Your task to perform on an android device: make emails show in primary in the gmail app Image 0: 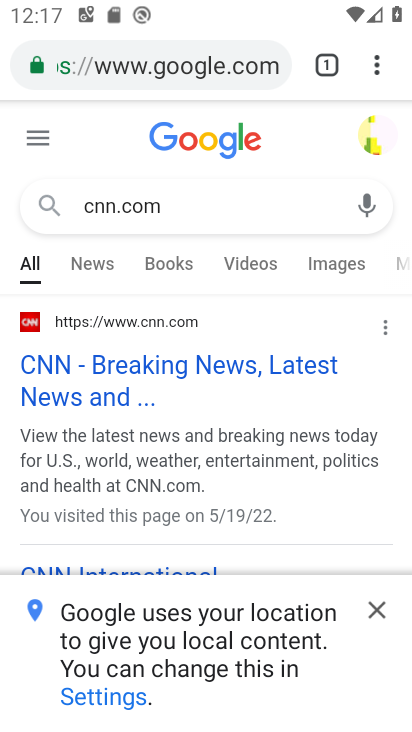
Step 0: press home button
Your task to perform on an android device: make emails show in primary in the gmail app Image 1: 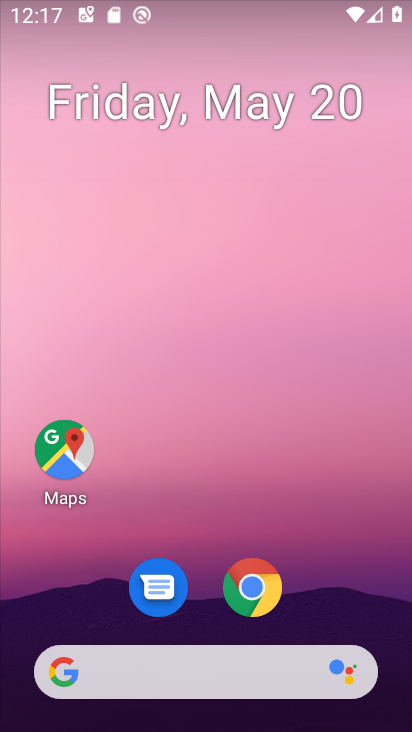
Step 1: drag from (382, 619) to (377, 305)
Your task to perform on an android device: make emails show in primary in the gmail app Image 2: 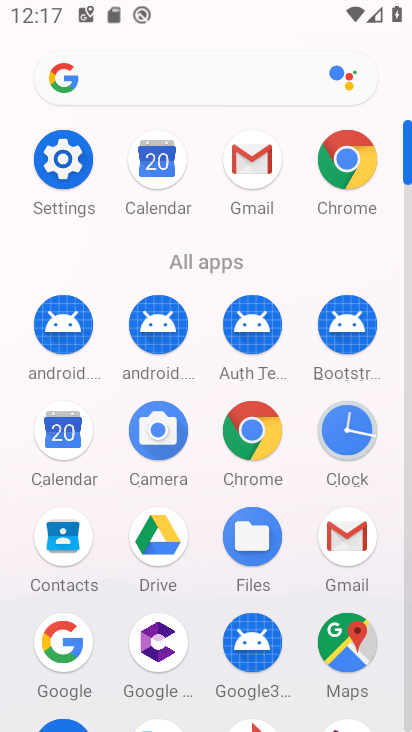
Step 2: click (349, 548)
Your task to perform on an android device: make emails show in primary in the gmail app Image 3: 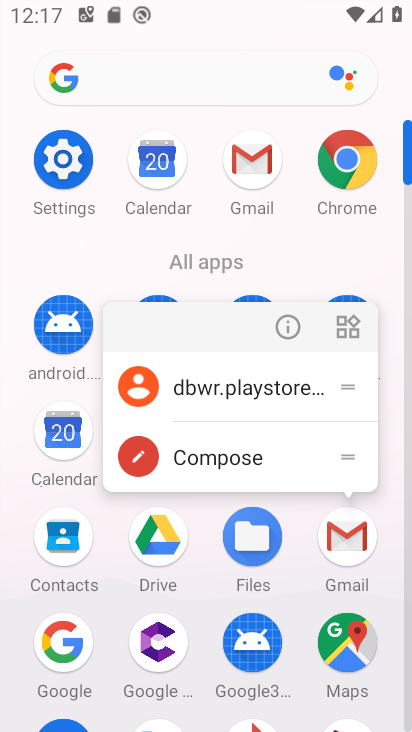
Step 3: click (347, 548)
Your task to perform on an android device: make emails show in primary in the gmail app Image 4: 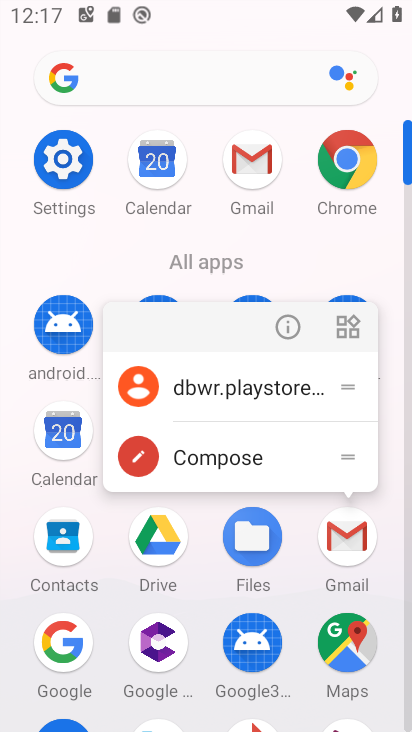
Step 4: click (346, 548)
Your task to perform on an android device: make emails show in primary in the gmail app Image 5: 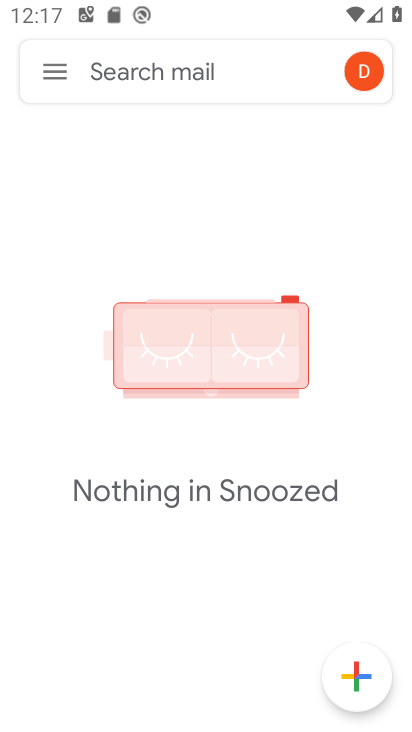
Step 5: click (57, 80)
Your task to perform on an android device: make emails show in primary in the gmail app Image 6: 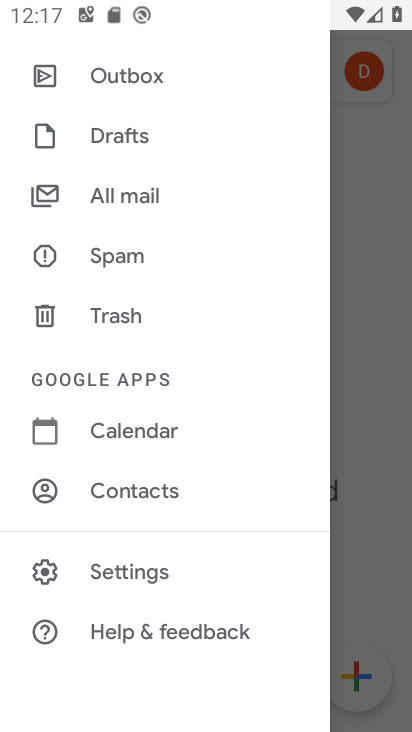
Step 6: click (193, 565)
Your task to perform on an android device: make emails show in primary in the gmail app Image 7: 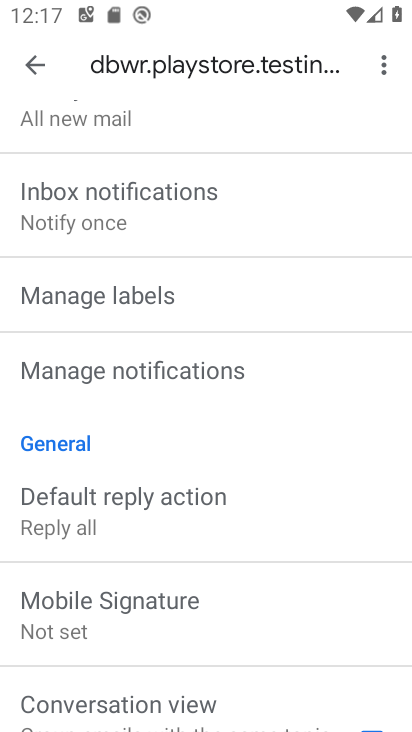
Step 7: drag from (310, 586) to (325, 502)
Your task to perform on an android device: make emails show in primary in the gmail app Image 8: 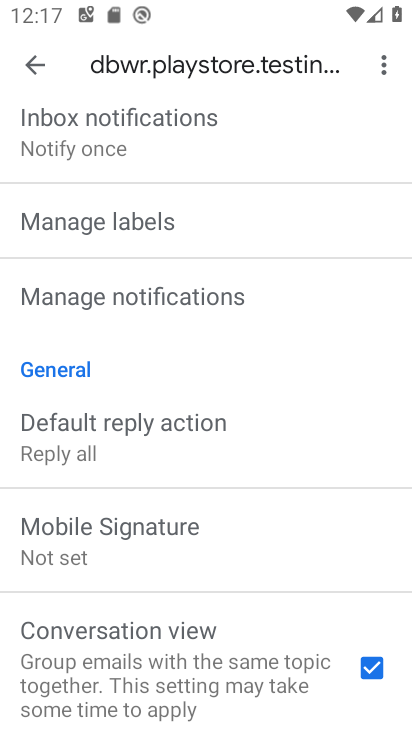
Step 8: drag from (307, 619) to (313, 516)
Your task to perform on an android device: make emails show in primary in the gmail app Image 9: 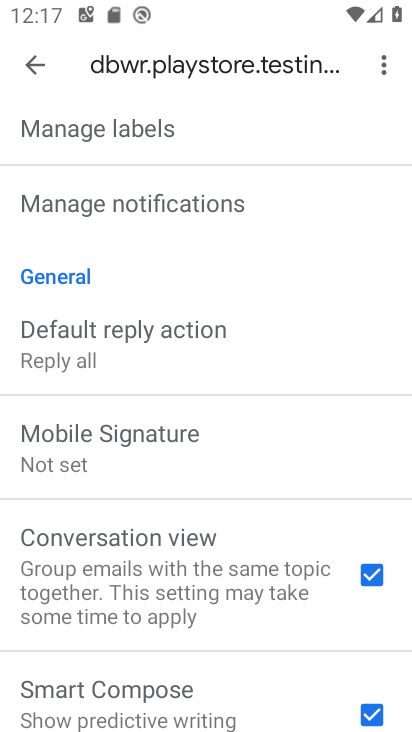
Step 9: drag from (300, 661) to (307, 521)
Your task to perform on an android device: make emails show in primary in the gmail app Image 10: 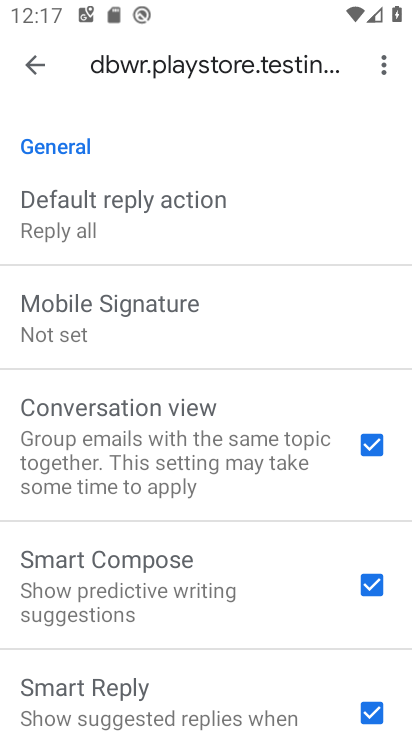
Step 10: drag from (304, 644) to (313, 541)
Your task to perform on an android device: make emails show in primary in the gmail app Image 11: 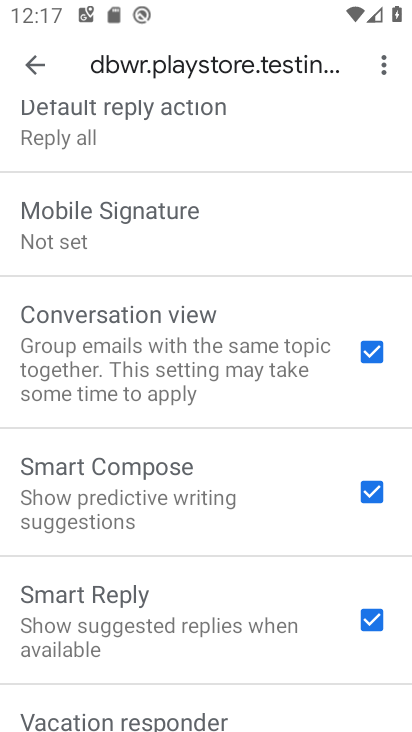
Step 11: drag from (306, 687) to (304, 585)
Your task to perform on an android device: make emails show in primary in the gmail app Image 12: 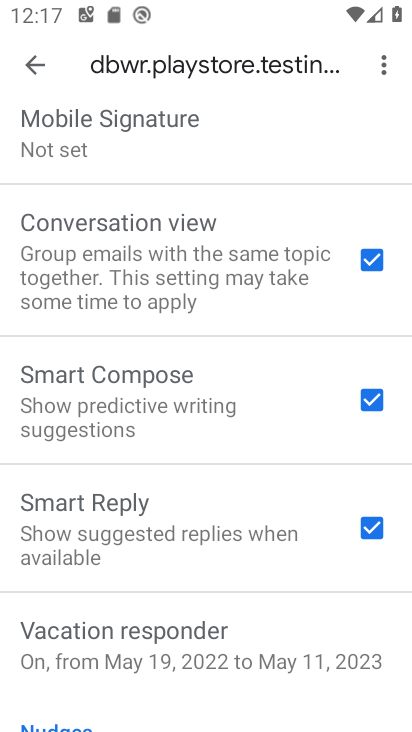
Step 12: drag from (289, 670) to (301, 550)
Your task to perform on an android device: make emails show in primary in the gmail app Image 13: 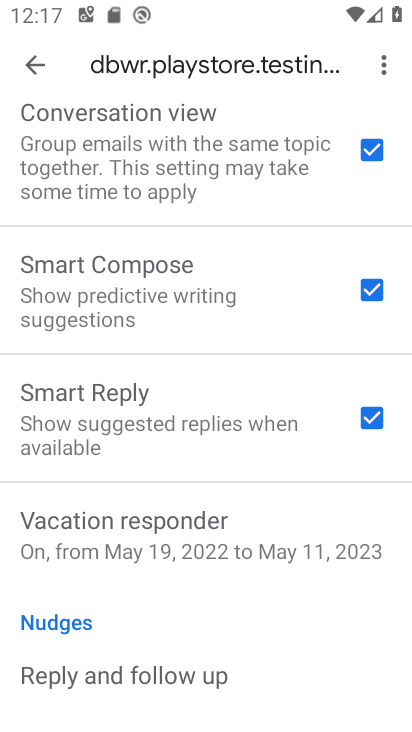
Step 13: drag from (310, 656) to (325, 520)
Your task to perform on an android device: make emails show in primary in the gmail app Image 14: 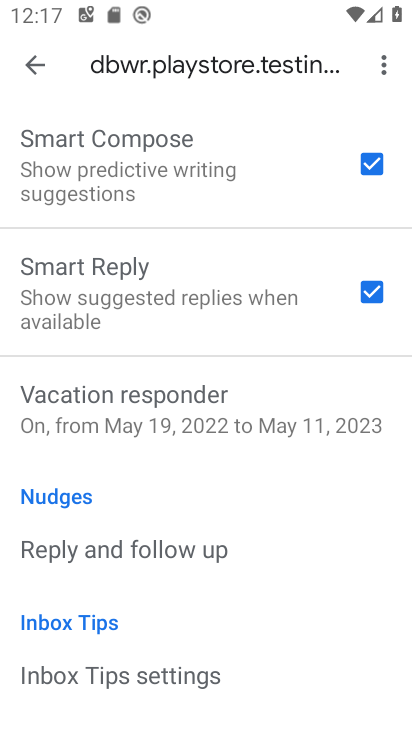
Step 14: drag from (325, 654) to (334, 543)
Your task to perform on an android device: make emails show in primary in the gmail app Image 15: 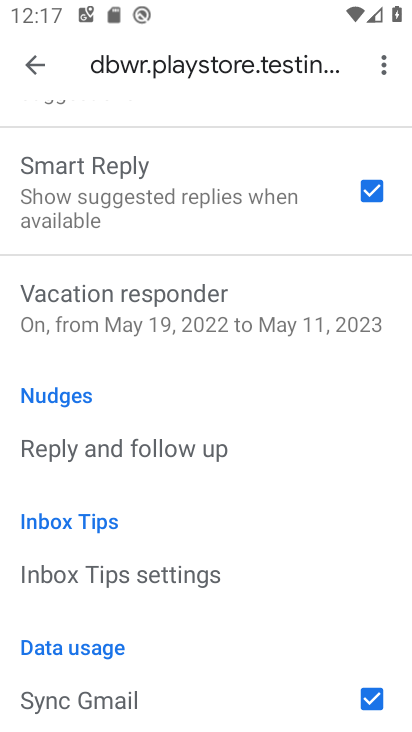
Step 15: drag from (311, 691) to (318, 556)
Your task to perform on an android device: make emails show in primary in the gmail app Image 16: 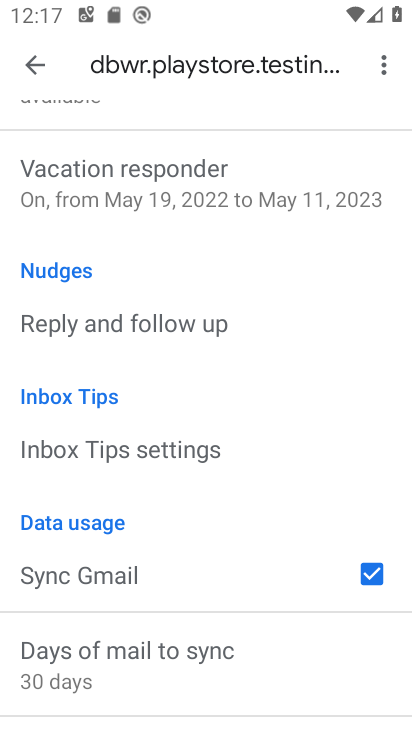
Step 16: drag from (312, 673) to (322, 545)
Your task to perform on an android device: make emails show in primary in the gmail app Image 17: 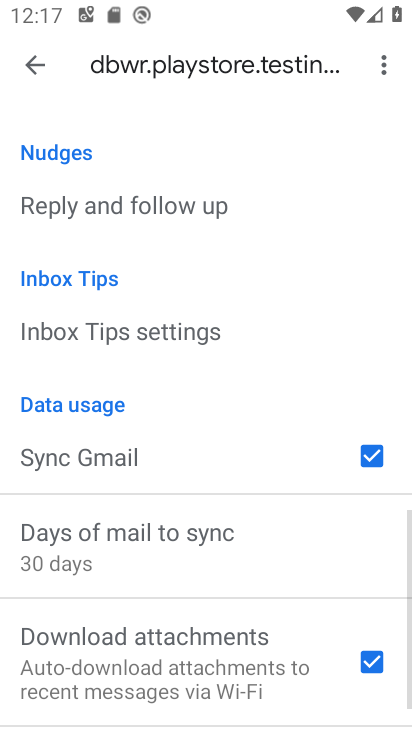
Step 17: drag from (316, 675) to (326, 542)
Your task to perform on an android device: make emails show in primary in the gmail app Image 18: 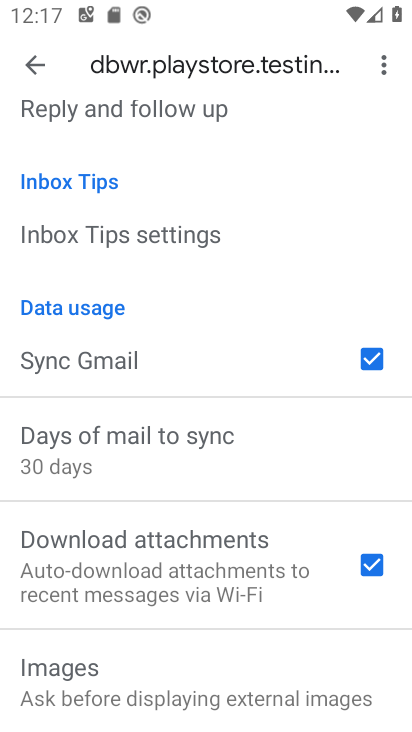
Step 18: drag from (316, 404) to (319, 569)
Your task to perform on an android device: make emails show in primary in the gmail app Image 19: 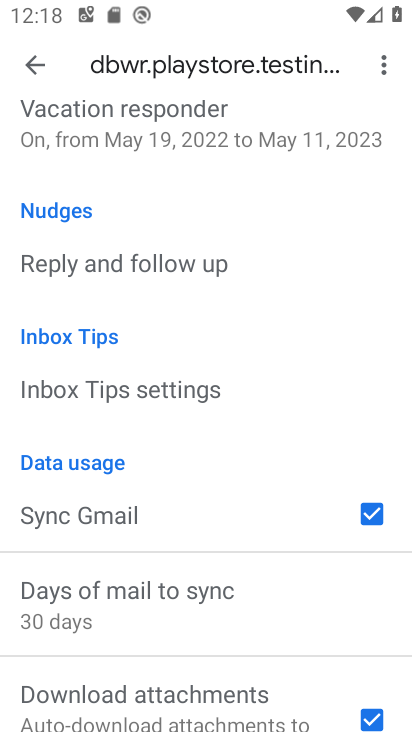
Step 19: drag from (332, 448) to (327, 549)
Your task to perform on an android device: make emails show in primary in the gmail app Image 20: 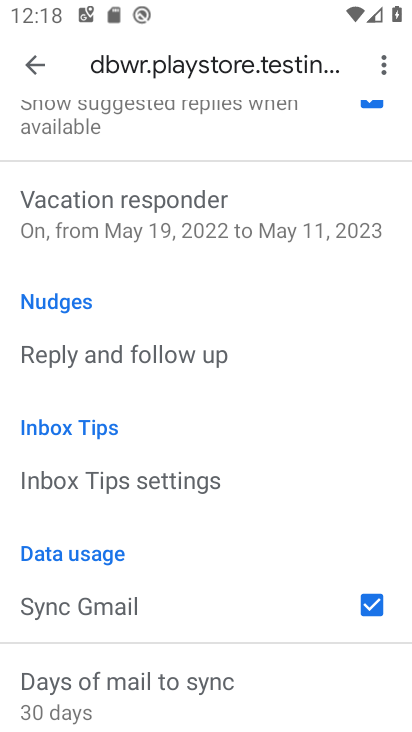
Step 20: drag from (316, 391) to (323, 471)
Your task to perform on an android device: make emails show in primary in the gmail app Image 21: 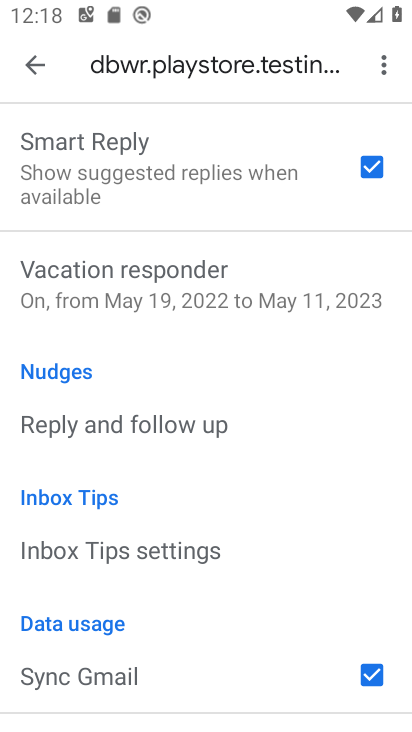
Step 21: drag from (312, 379) to (314, 498)
Your task to perform on an android device: make emails show in primary in the gmail app Image 22: 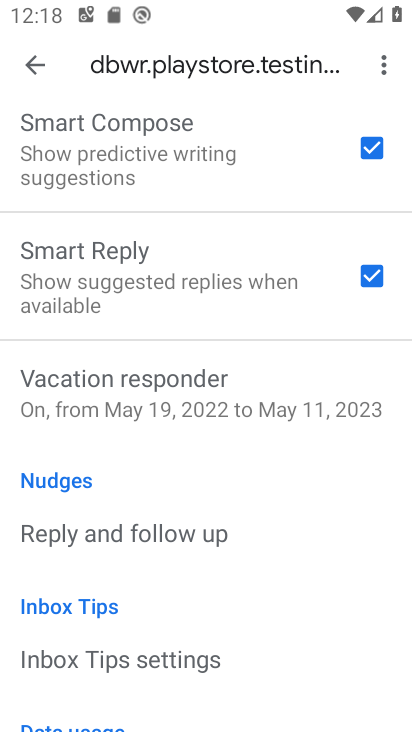
Step 22: drag from (296, 354) to (295, 506)
Your task to perform on an android device: make emails show in primary in the gmail app Image 23: 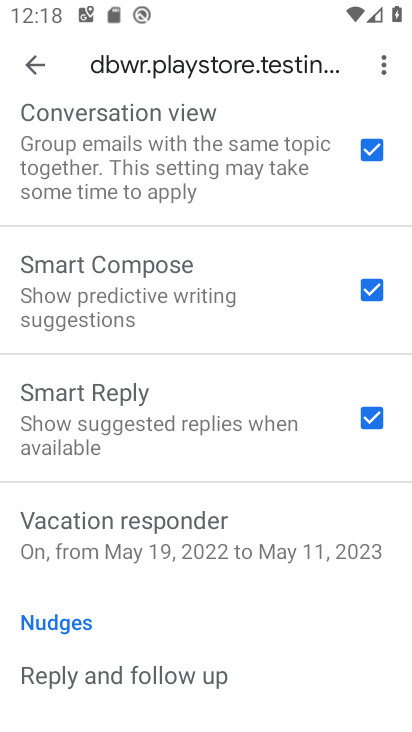
Step 23: drag from (304, 338) to (322, 509)
Your task to perform on an android device: make emails show in primary in the gmail app Image 24: 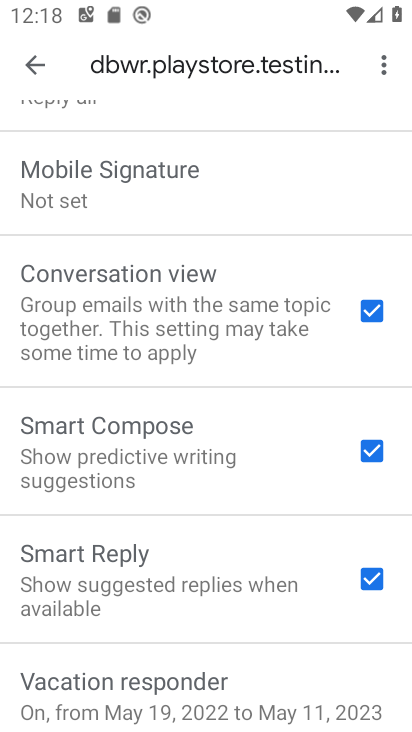
Step 24: drag from (301, 384) to (308, 465)
Your task to perform on an android device: make emails show in primary in the gmail app Image 25: 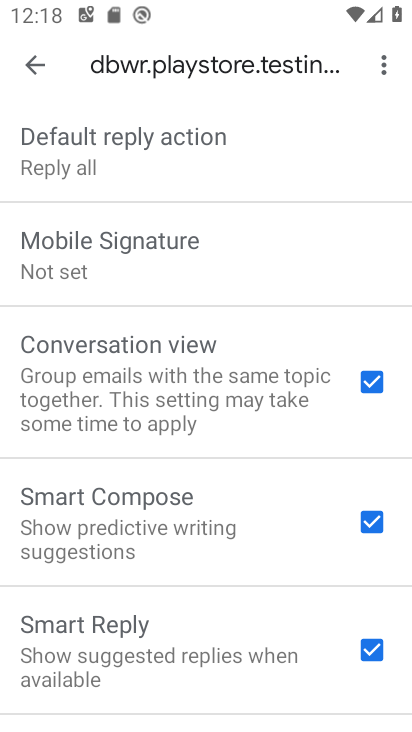
Step 25: drag from (309, 314) to (311, 409)
Your task to perform on an android device: make emails show in primary in the gmail app Image 26: 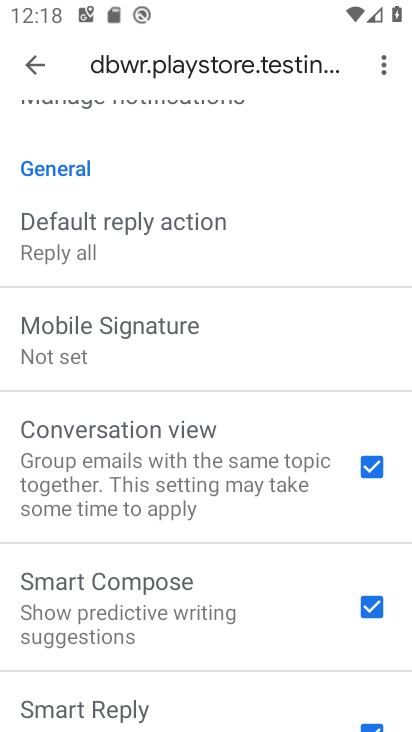
Step 26: drag from (289, 271) to (289, 376)
Your task to perform on an android device: make emails show in primary in the gmail app Image 27: 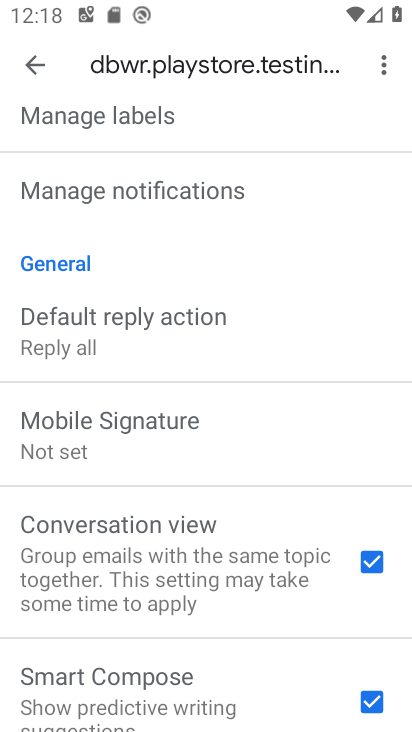
Step 27: drag from (277, 255) to (287, 340)
Your task to perform on an android device: make emails show in primary in the gmail app Image 28: 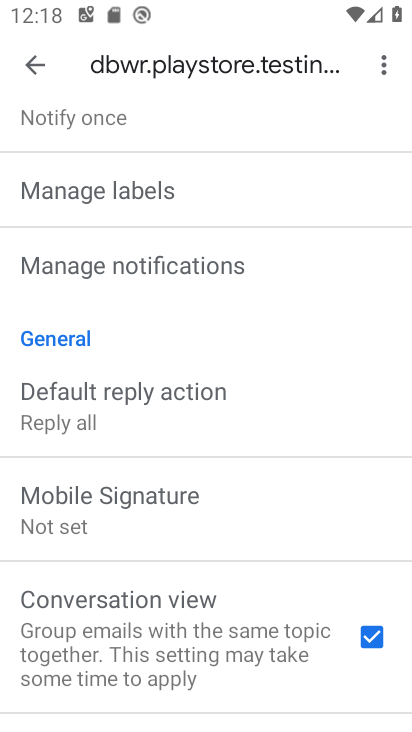
Step 28: drag from (280, 221) to (278, 326)
Your task to perform on an android device: make emails show in primary in the gmail app Image 29: 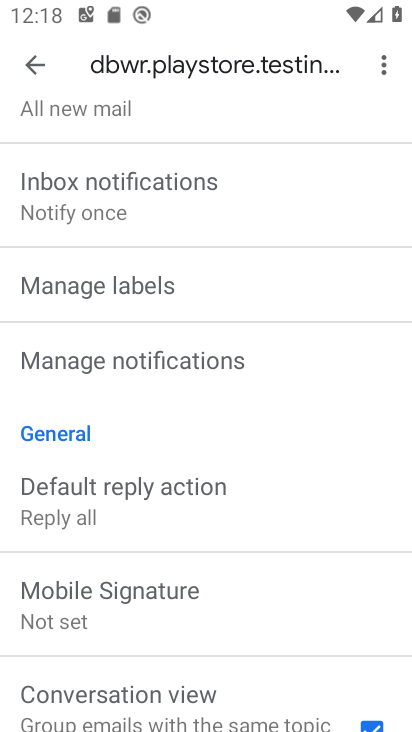
Step 29: drag from (274, 235) to (271, 309)
Your task to perform on an android device: make emails show in primary in the gmail app Image 30: 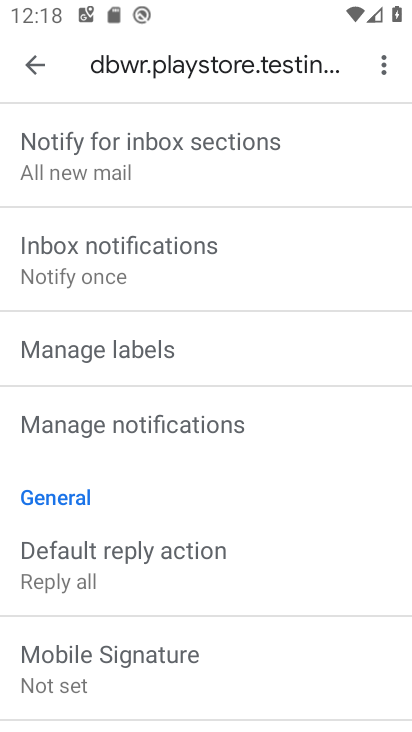
Step 30: drag from (276, 244) to (271, 326)
Your task to perform on an android device: make emails show in primary in the gmail app Image 31: 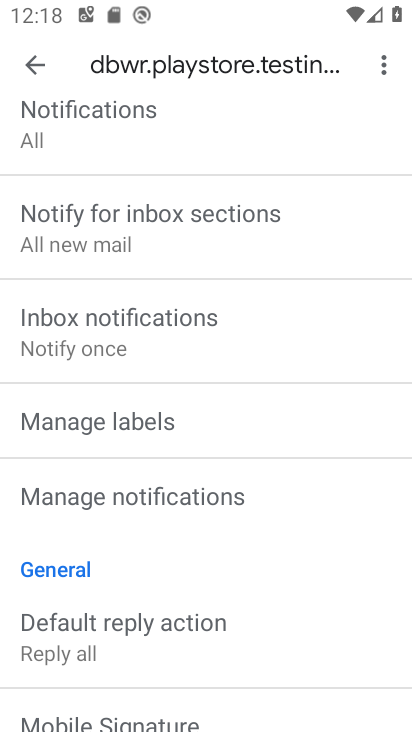
Step 31: drag from (291, 212) to (293, 305)
Your task to perform on an android device: make emails show in primary in the gmail app Image 32: 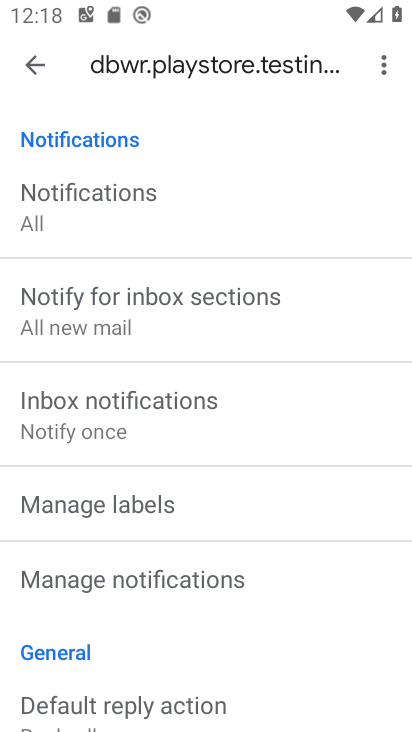
Step 32: drag from (300, 218) to (293, 291)
Your task to perform on an android device: make emails show in primary in the gmail app Image 33: 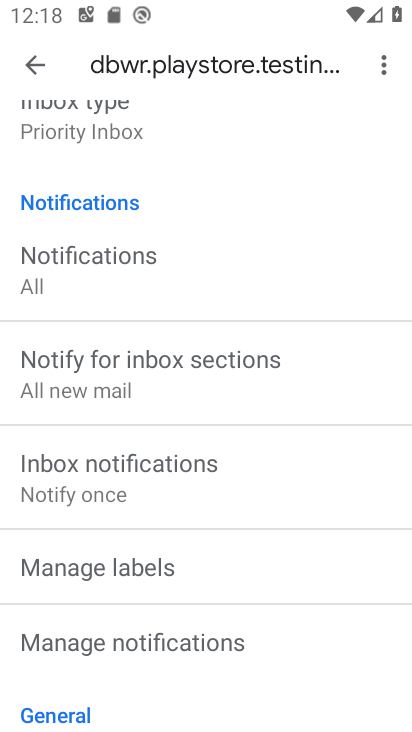
Step 33: drag from (262, 196) to (252, 268)
Your task to perform on an android device: make emails show in primary in the gmail app Image 34: 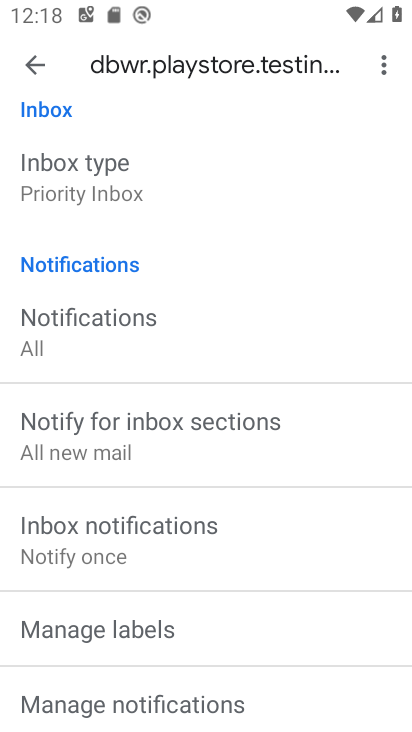
Step 34: click (146, 213)
Your task to perform on an android device: make emails show in primary in the gmail app Image 35: 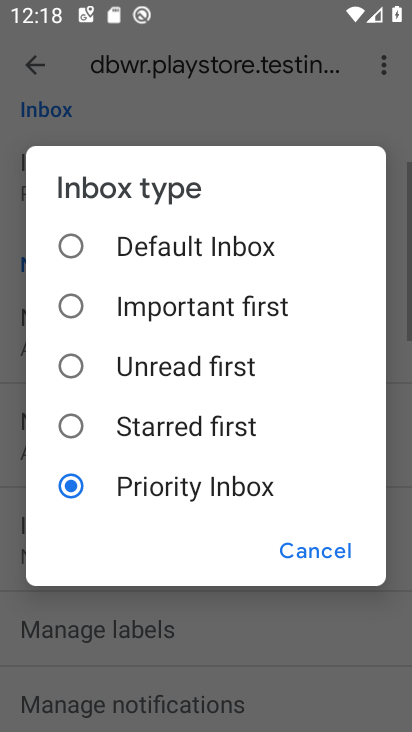
Step 35: click (153, 233)
Your task to perform on an android device: make emails show in primary in the gmail app Image 36: 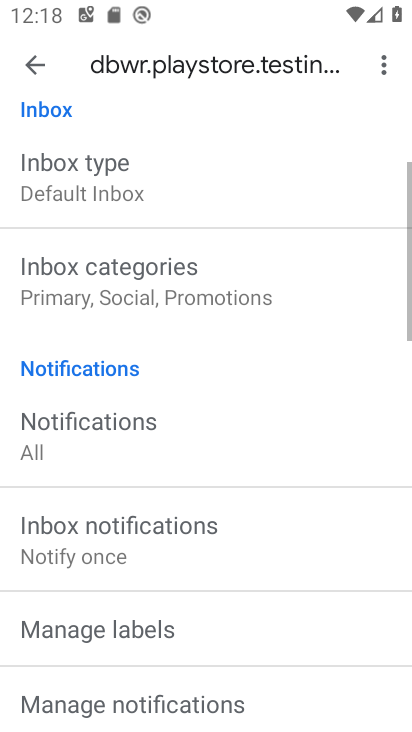
Step 36: click (150, 278)
Your task to perform on an android device: make emails show in primary in the gmail app Image 37: 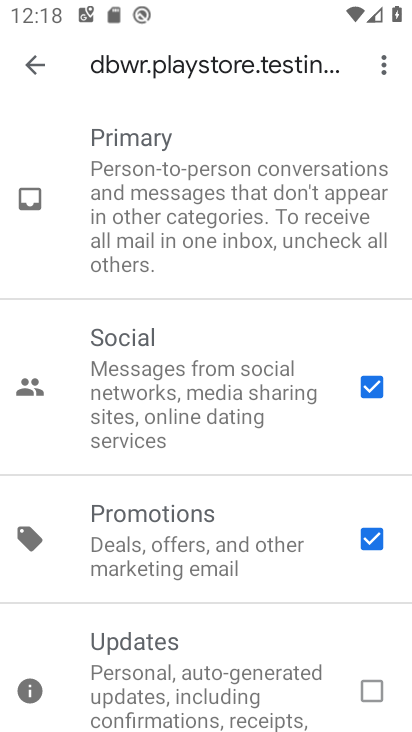
Step 37: click (366, 392)
Your task to perform on an android device: make emails show in primary in the gmail app Image 38: 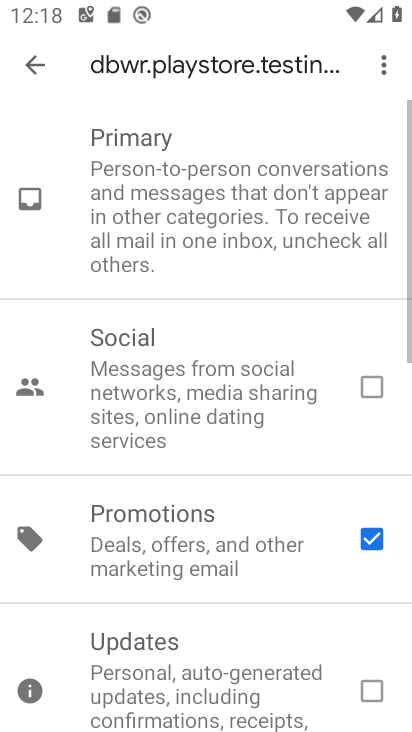
Step 38: click (361, 543)
Your task to perform on an android device: make emails show in primary in the gmail app Image 39: 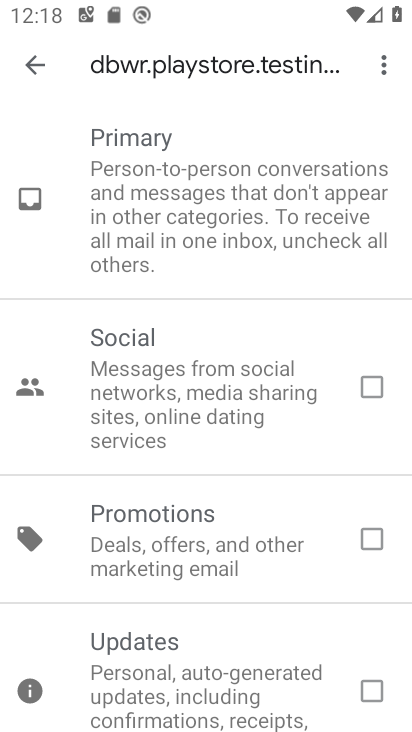
Step 39: task complete